Your task to perform on an android device: search for starred emails in the gmail app Image 0: 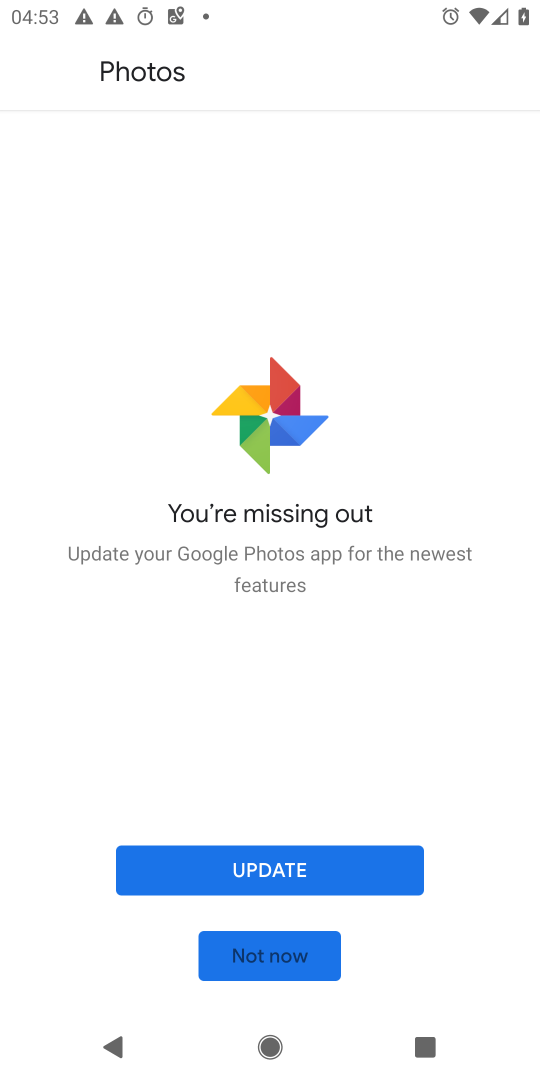
Step 0: press home button
Your task to perform on an android device: search for starred emails in the gmail app Image 1: 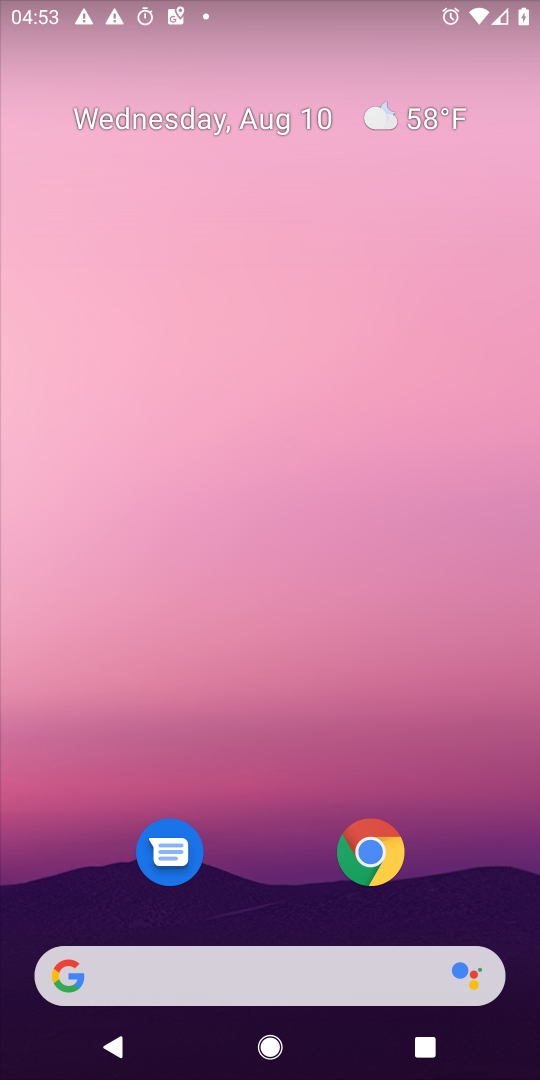
Step 1: drag from (290, 876) to (222, 199)
Your task to perform on an android device: search for starred emails in the gmail app Image 2: 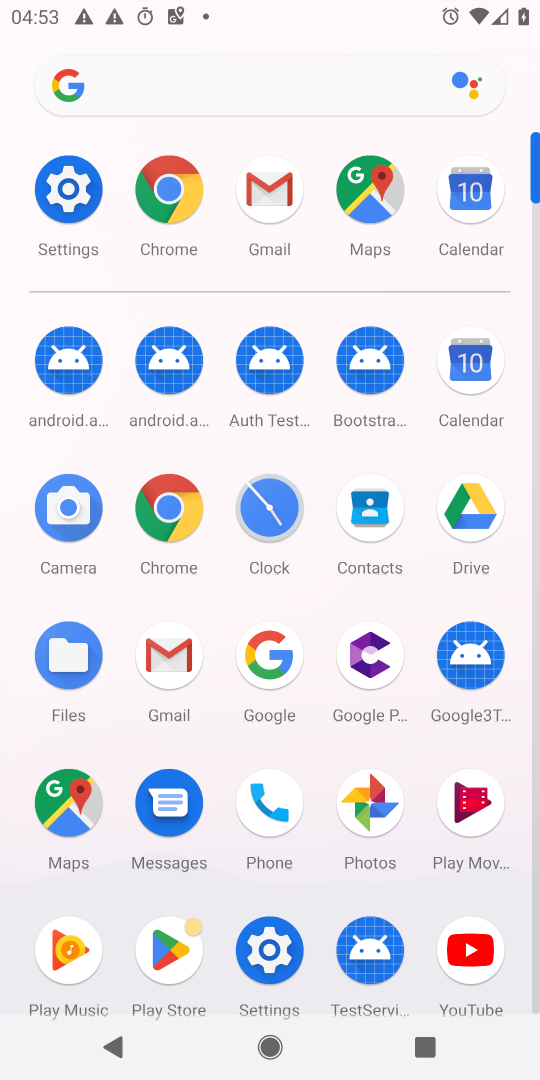
Step 2: click (157, 660)
Your task to perform on an android device: search for starred emails in the gmail app Image 3: 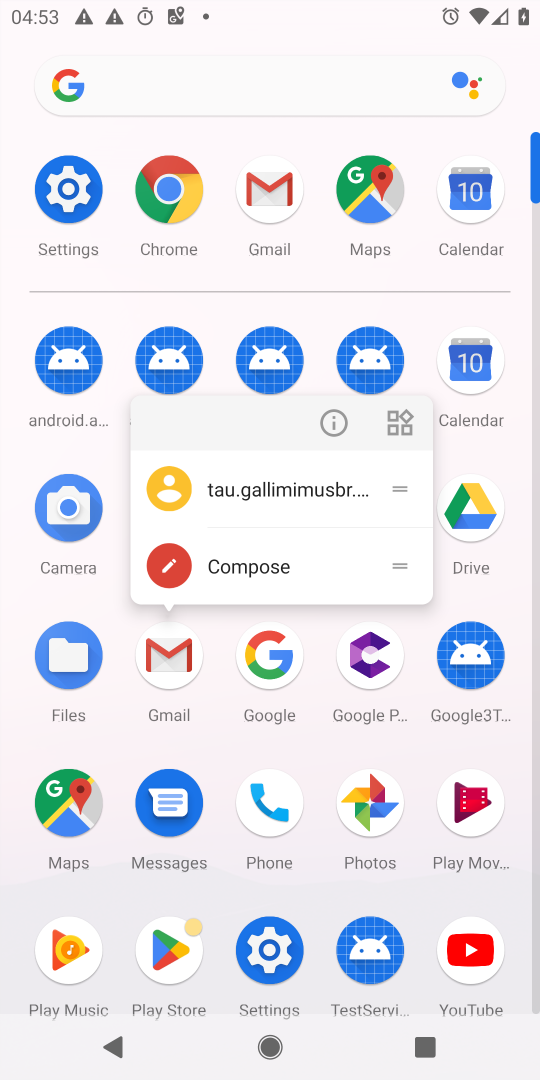
Step 3: click (187, 637)
Your task to perform on an android device: search for starred emails in the gmail app Image 4: 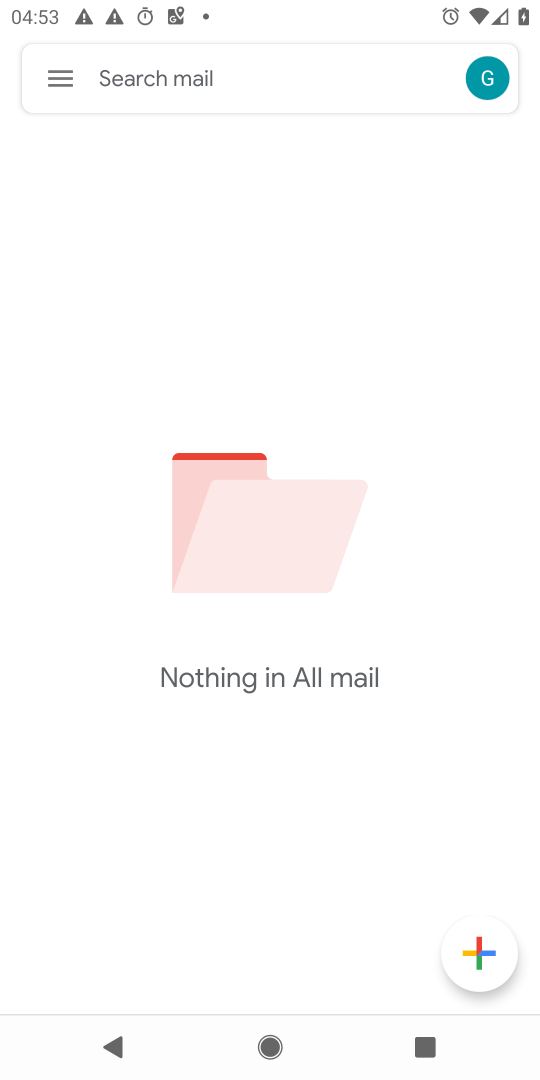
Step 4: click (65, 86)
Your task to perform on an android device: search for starred emails in the gmail app Image 5: 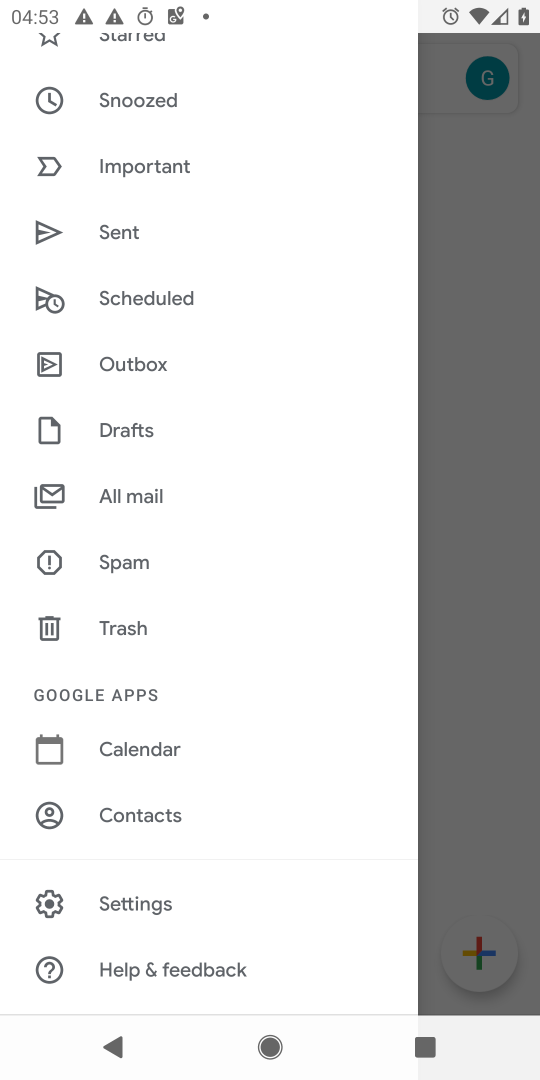
Step 5: drag from (134, 216) to (120, 598)
Your task to perform on an android device: search for starred emails in the gmail app Image 6: 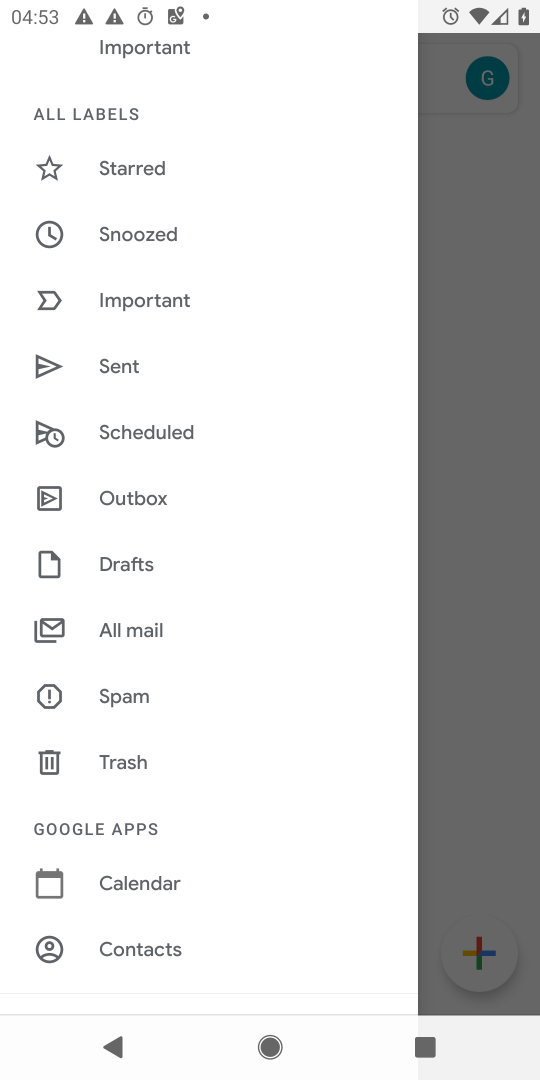
Step 6: click (139, 168)
Your task to perform on an android device: search for starred emails in the gmail app Image 7: 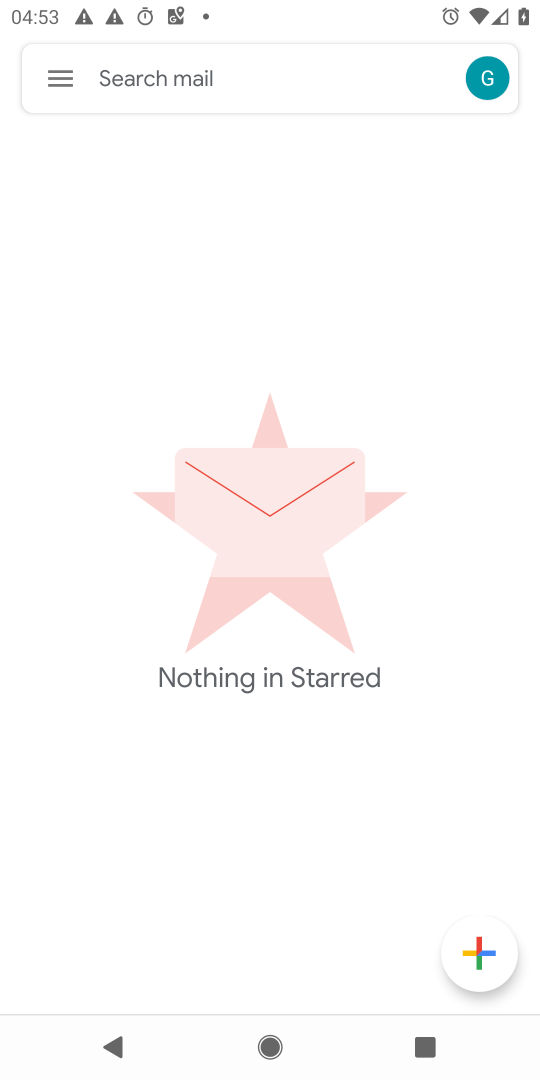
Step 7: task complete